Your task to perform on an android device: add a contact in the contacts app Image 0: 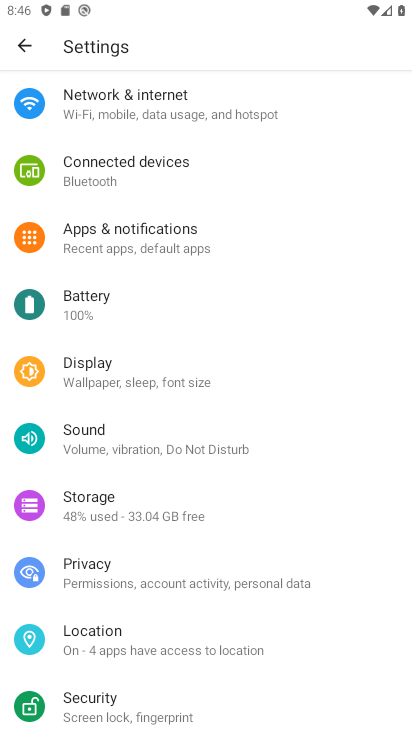
Step 0: press home button
Your task to perform on an android device: add a contact in the contacts app Image 1: 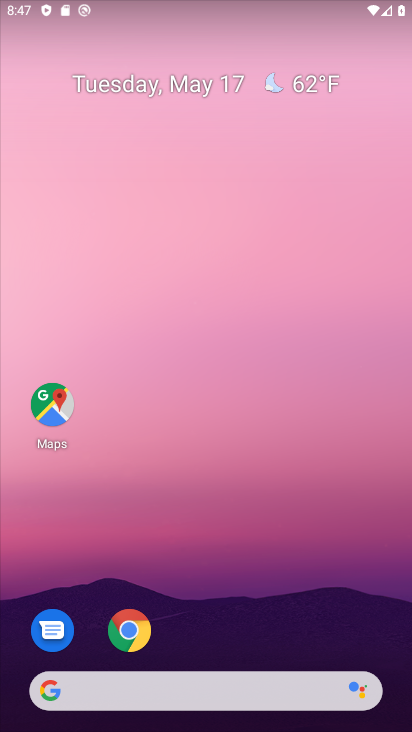
Step 1: drag from (235, 633) to (220, 289)
Your task to perform on an android device: add a contact in the contacts app Image 2: 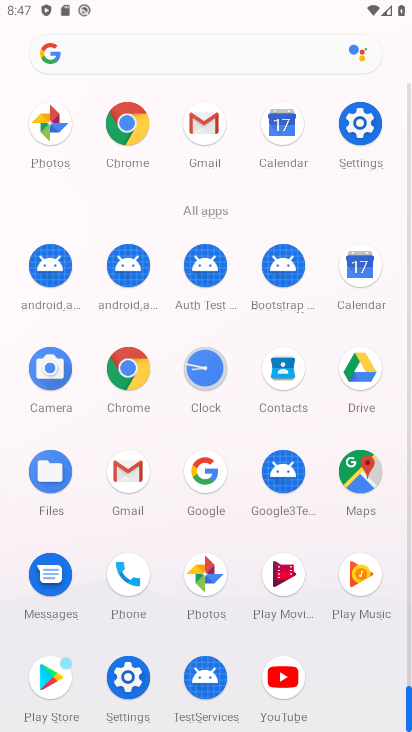
Step 2: click (284, 405)
Your task to perform on an android device: add a contact in the contacts app Image 3: 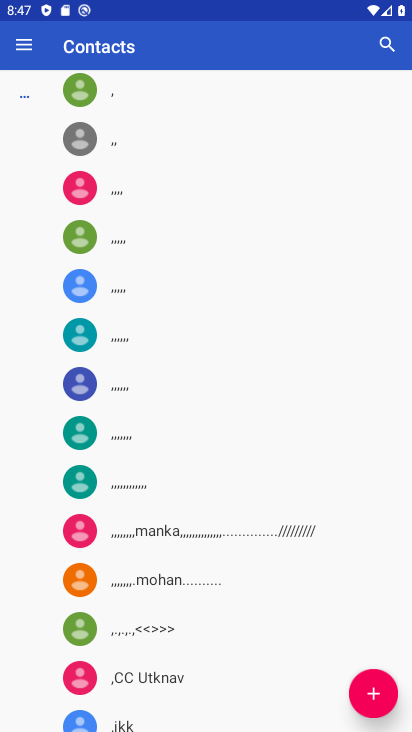
Step 3: click (380, 699)
Your task to perform on an android device: add a contact in the contacts app Image 4: 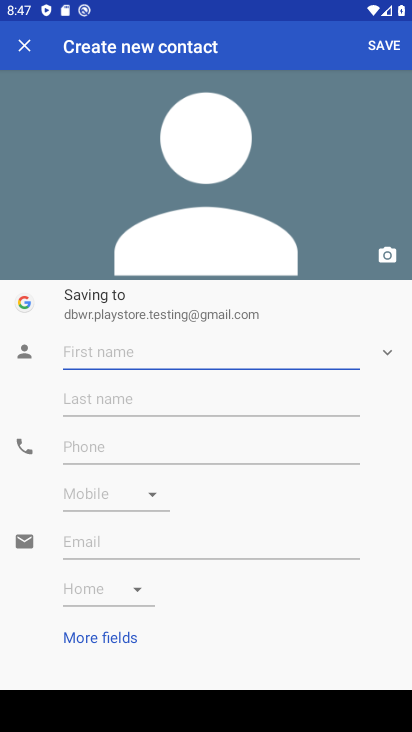
Step 4: click (211, 359)
Your task to perform on an android device: add a contact in the contacts app Image 5: 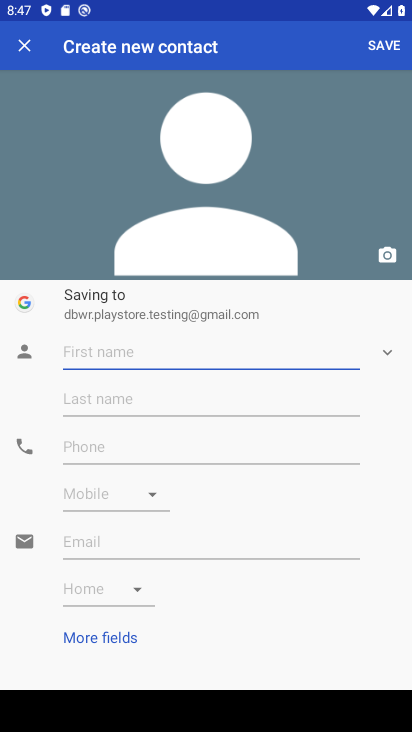
Step 5: type "Ajanta "
Your task to perform on an android device: add a contact in the contacts app Image 6: 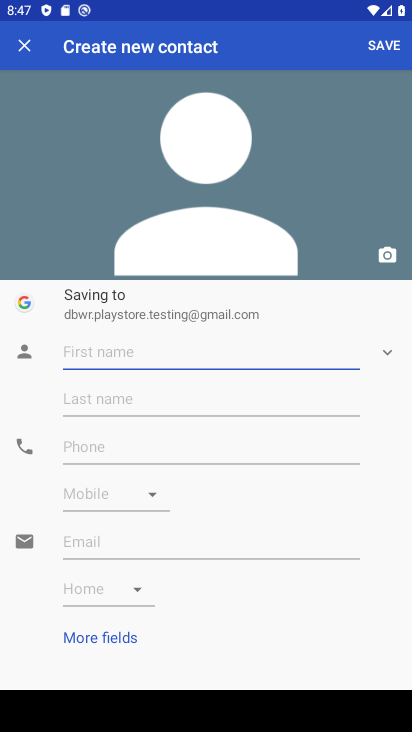
Step 6: click (79, 400)
Your task to perform on an android device: add a contact in the contacts app Image 7: 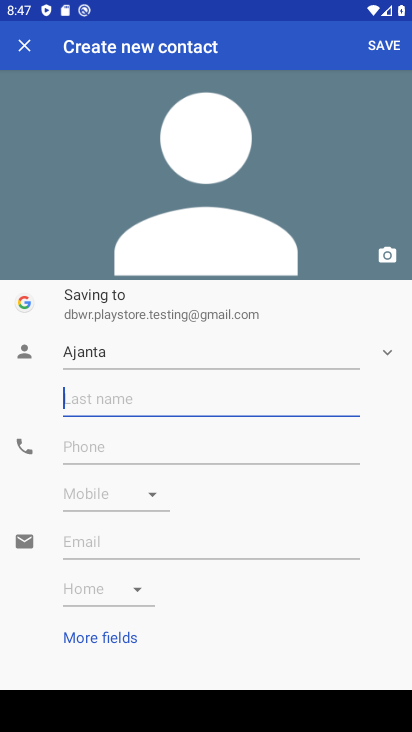
Step 7: type "Clocks"
Your task to perform on an android device: add a contact in the contacts app Image 8: 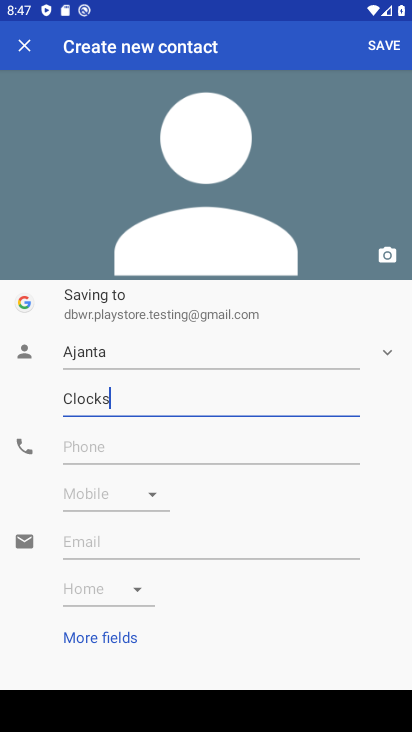
Step 8: click (264, 453)
Your task to perform on an android device: add a contact in the contacts app Image 9: 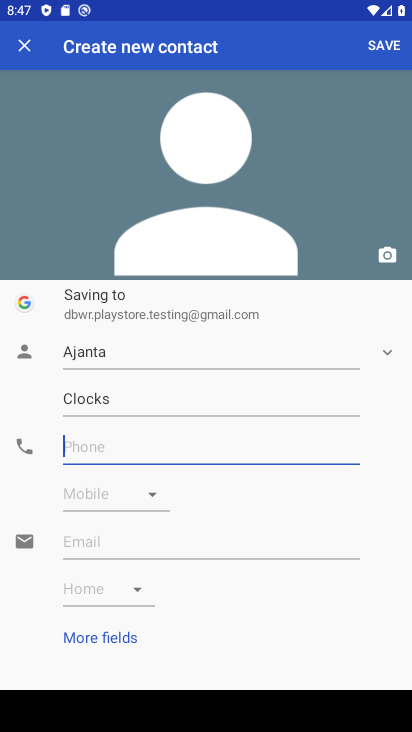
Step 9: type "8989989889"
Your task to perform on an android device: add a contact in the contacts app Image 10: 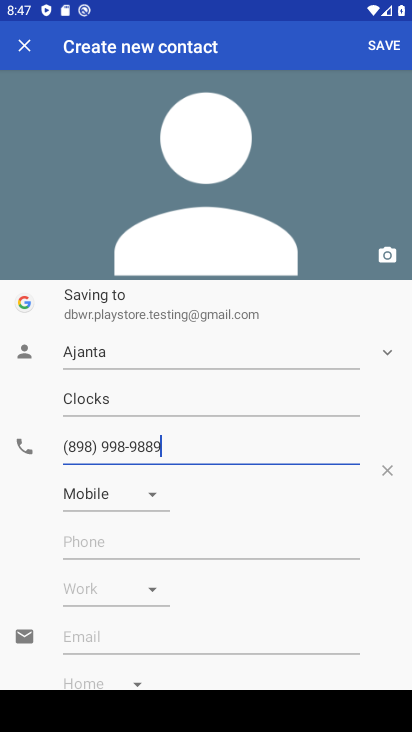
Step 10: click (373, 42)
Your task to perform on an android device: add a contact in the contacts app Image 11: 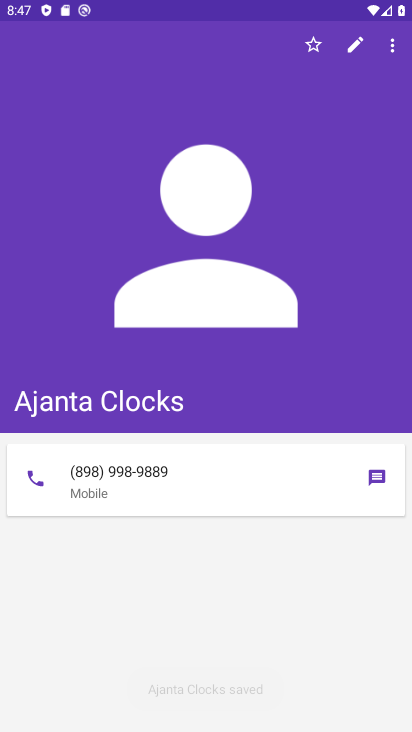
Step 11: task complete